Your task to perform on an android device: turn on sleep mode Image 0: 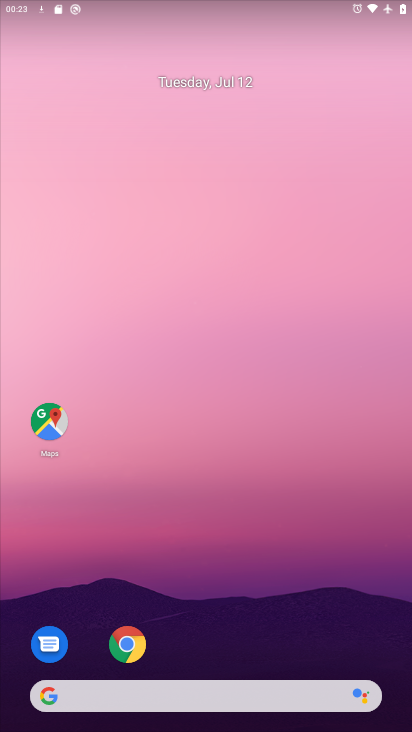
Step 0: drag from (207, 608) to (228, 150)
Your task to perform on an android device: turn on sleep mode Image 1: 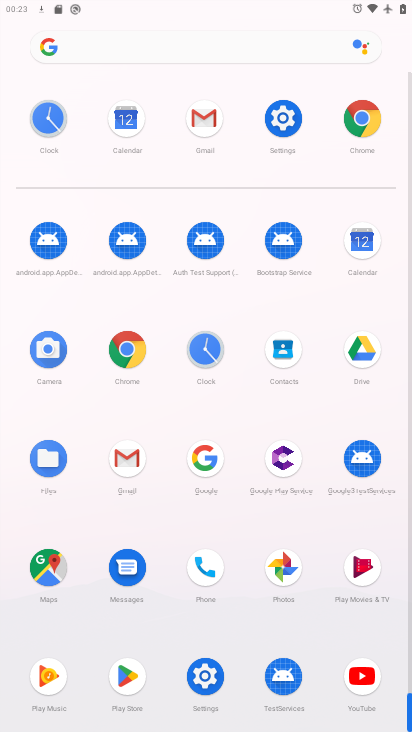
Step 1: click (291, 116)
Your task to perform on an android device: turn on sleep mode Image 2: 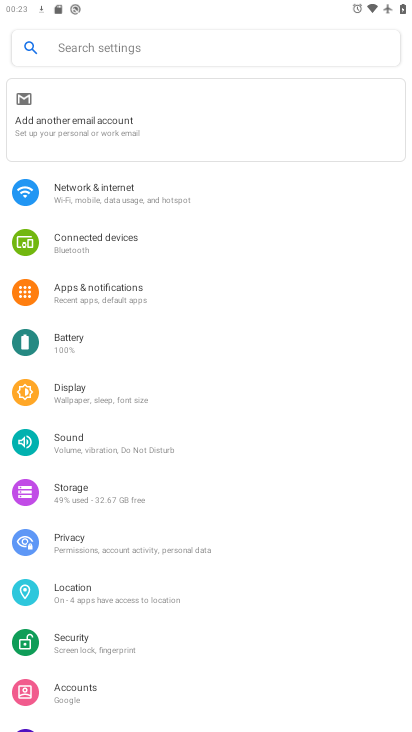
Step 2: task complete